Your task to perform on an android device: toggle notifications settings in the gmail app Image 0: 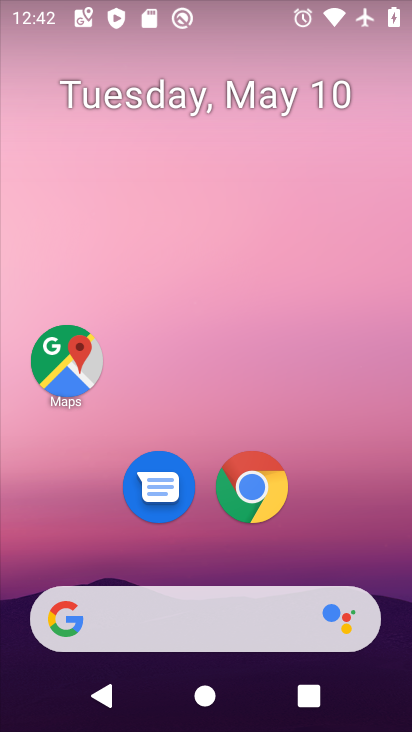
Step 0: drag from (347, 517) to (354, 292)
Your task to perform on an android device: toggle notifications settings in the gmail app Image 1: 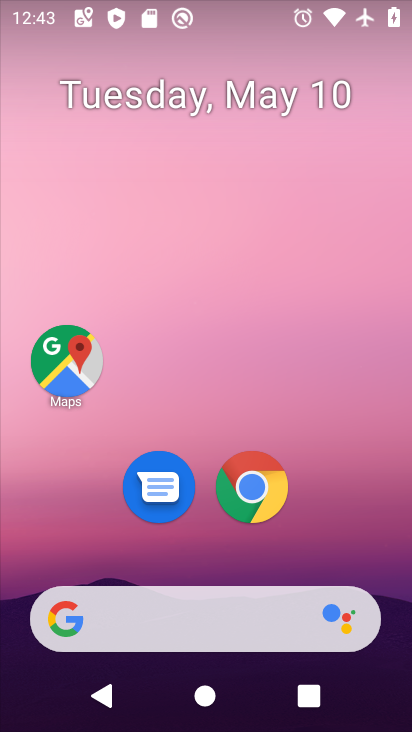
Step 1: drag from (359, 542) to (264, 5)
Your task to perform on an android device: toggle notifications settings in the gmail app Image 2: 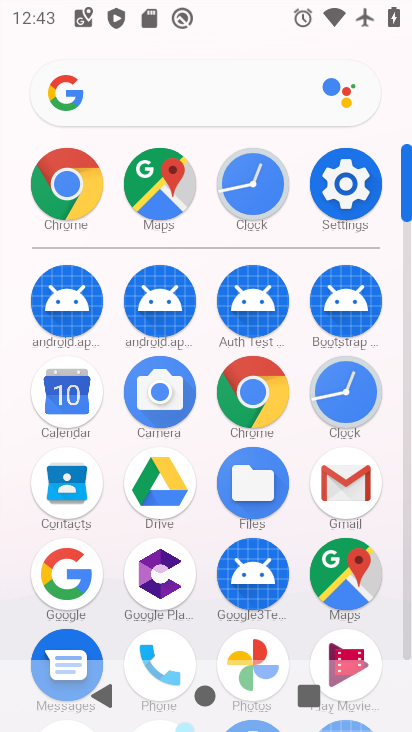
Step 2: click (329, 492)
Your task to perform on an android device: toggle notifications settings in the gmail app Image 3: 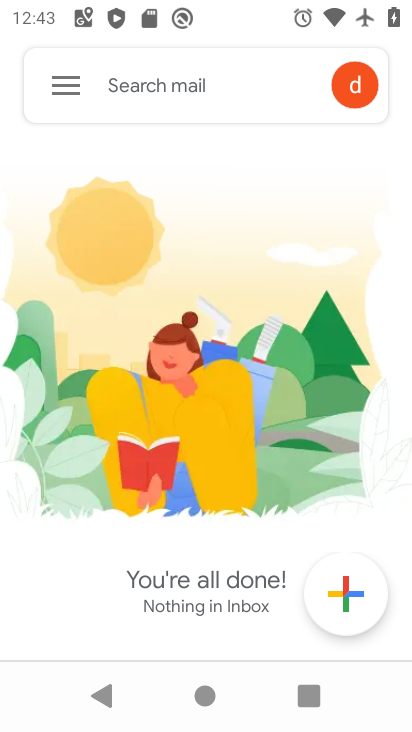
Step 3: click (63, 101)
Your task to perform on an android device: toggle notifications settings in the gmail app Image 4: 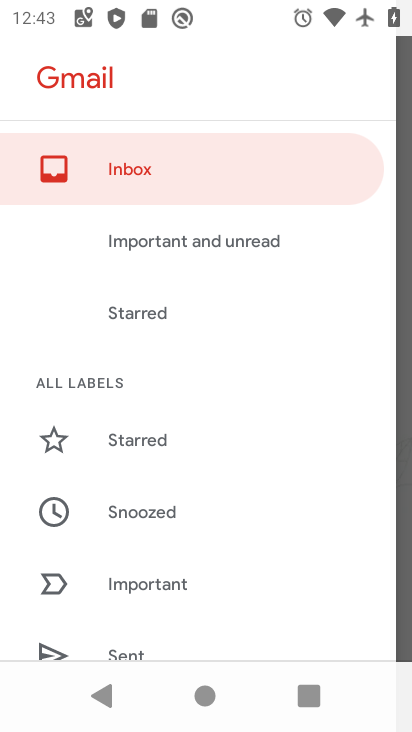
Step 4: drag from (104, 508) to (131, 286)
Your task to perform on an android device: toggle notifications settings in the gmail app Image 5: 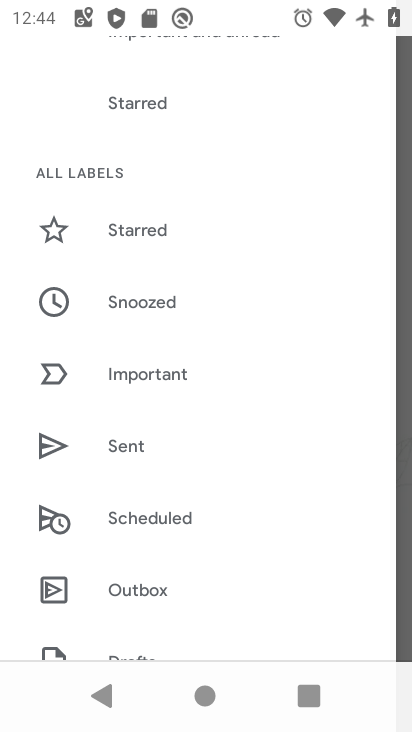
Step 5: drag from (135, 528) to (159, 198)
Your task to perform on an android device: toggle notifications settings in the gmail app Image 6: 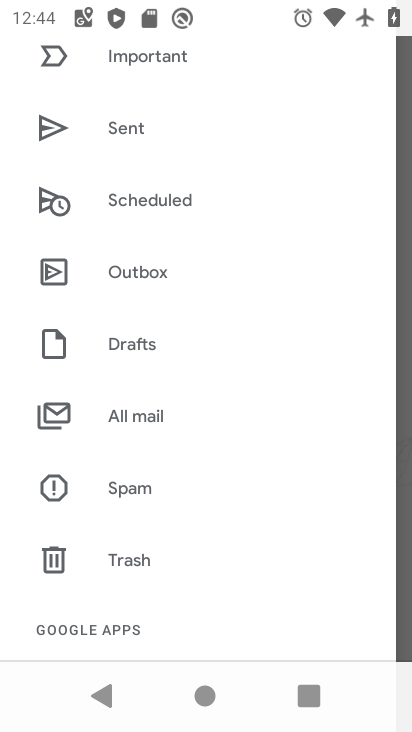
Step 6: drag from (169, 509) to (174, 237)
Your task to perform on an android device: toggle notifications settings in the gmail app Image 7: 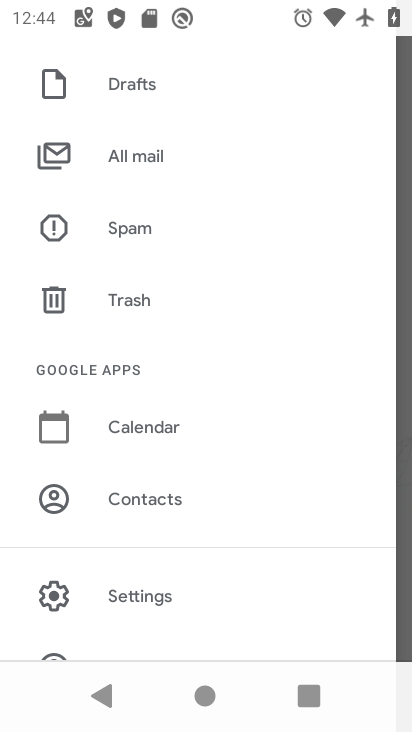
Step 7: click (174, 572)
Your task to perform on an android device: toggle notifications settings in the gmail app Image 8: 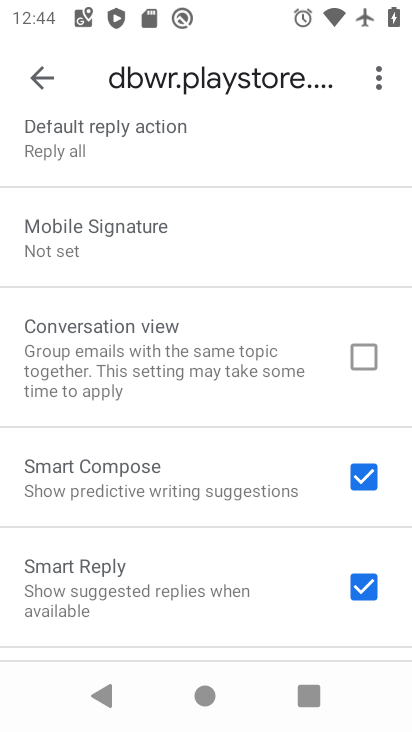
Step 8: drag from (225, 168) to (218, 345)
Your task to perform on an android device: toggle notifications settings in the gmail app Image 9: 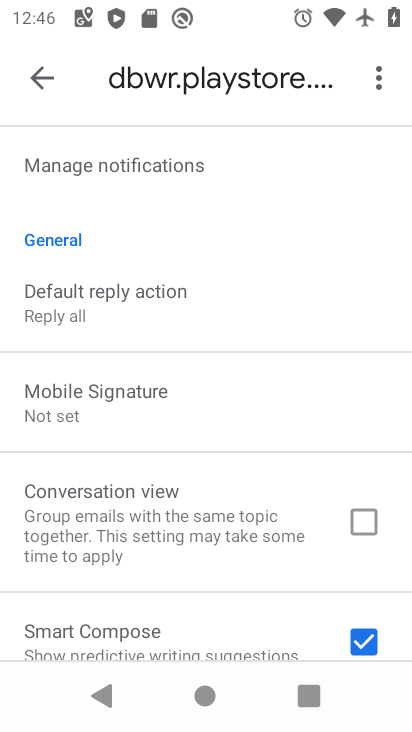
Step 9: click (44, 160)
Your task to perform on an android device: toggle notifications settings in the gmail app Image 10: 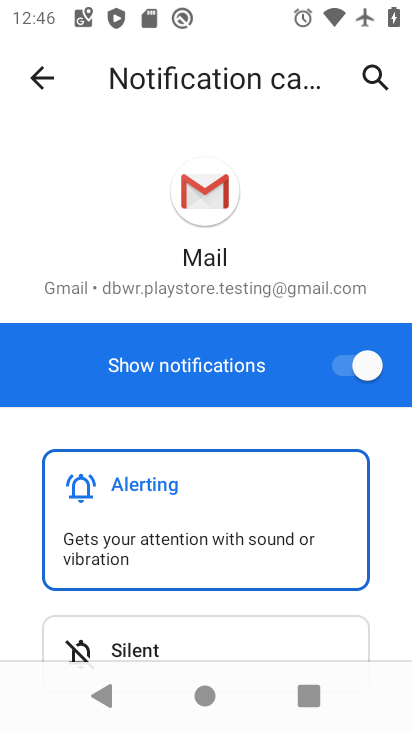
Step 10: task complete